Your task to perform on an android device: turn off javascript in the chrome app Image 0: 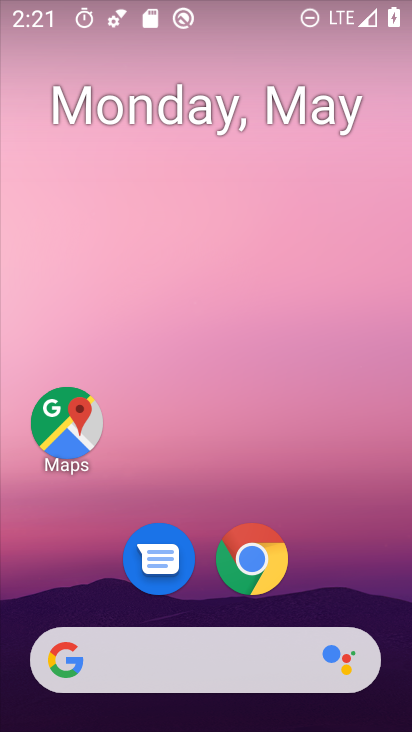
Step 0: click (253, 560)
Your task to perform on an android device: turn off javascript in the chrome app Image 1: 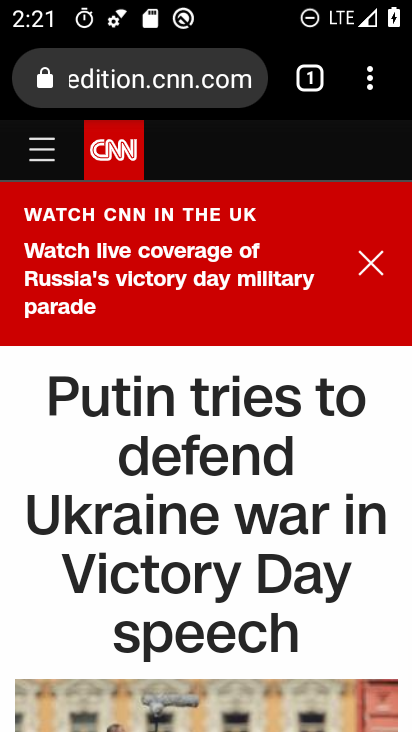
Step 1: drag from (371, 74) to (145, 609)
Your task to perform on an android device: turn off javascript in the chrome app Image 2: 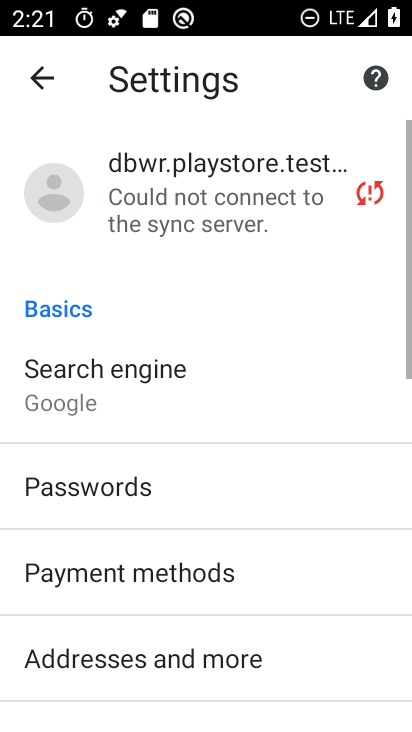
Step 2: drag from (190, 625) to (216, 161)
Your task to perform on an android device: turn off javascript in the chrome app Image 3: 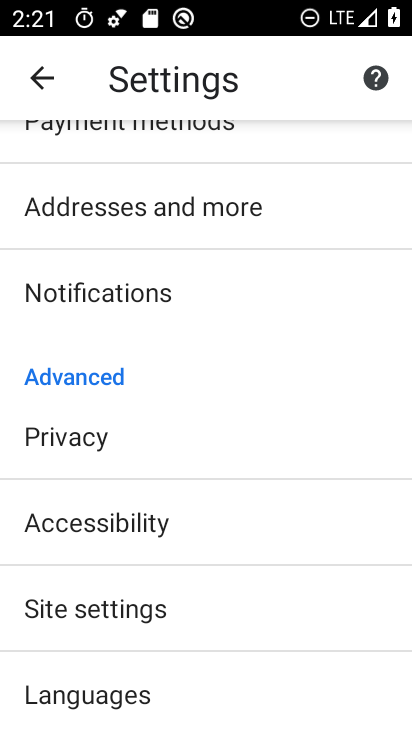
Step 3: click (136, 614)
Your task to perform on an android device: turn off javascript in the chrome app Image 4: 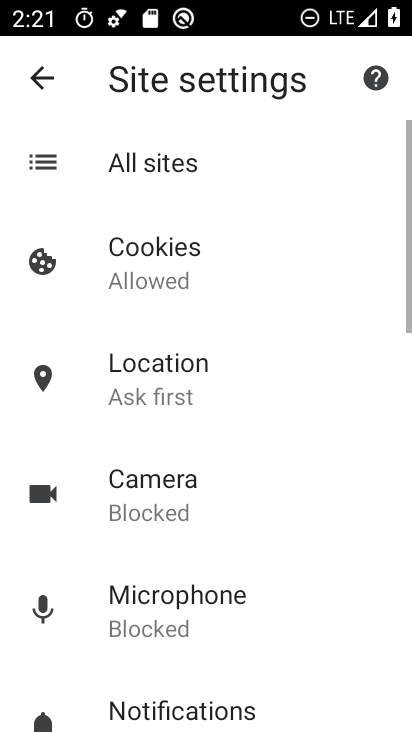
Step 4: drag from (272, 610) to (297, 331)
Your task to perform on an android device: turn off javascript in the chrome app Image 5: 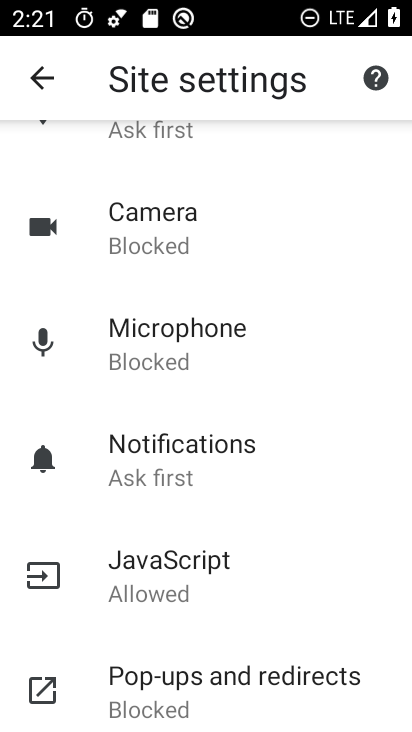
Step 5: click (185, 556)
Your task to perform on an android device: turn off javascript in the chrome app Image 6: 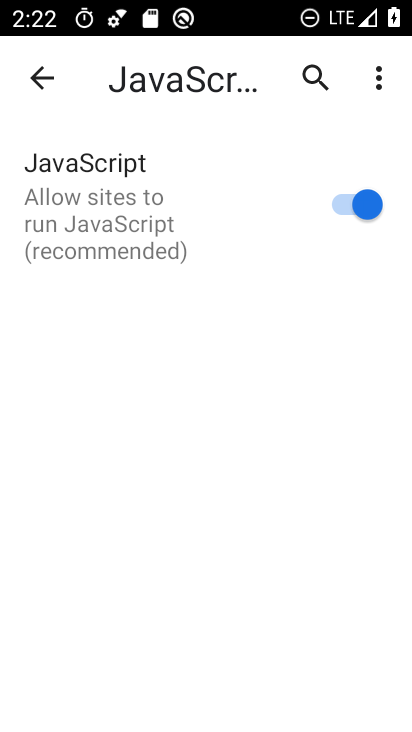
Step 6: click (363, 202)
Your task to perform on an android device: turn off javascript in the chrome app Image 7: 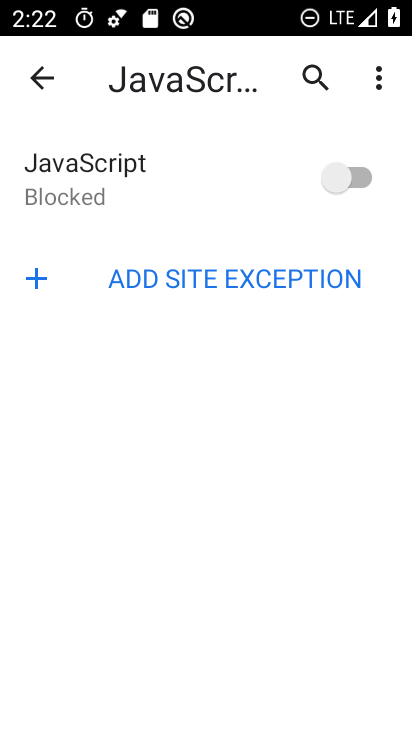
Step 7: task complete